Your task to perform on an android device: show emergency info Image 0: 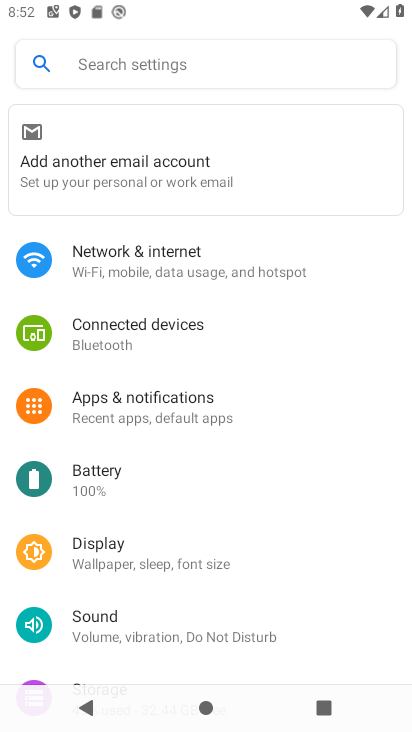
Step 0: drag from (217, 584) to (282, 229)
Your task to perform on an android device: show emergency info Image 1: 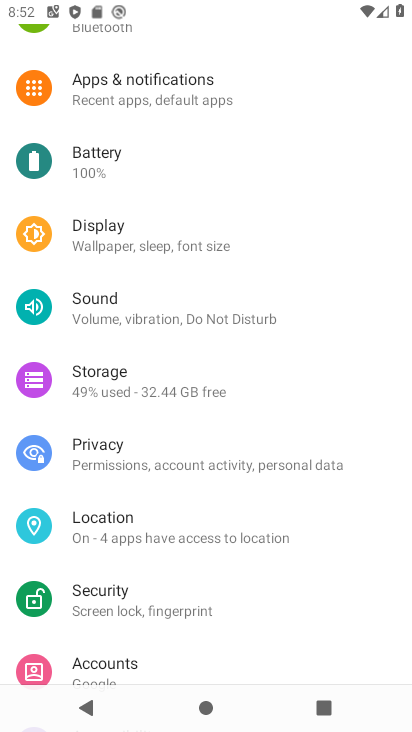
Step 1: drag from (155, 492) to (136, 108)
Your task to perform on an android device: show emergency info Image 2: 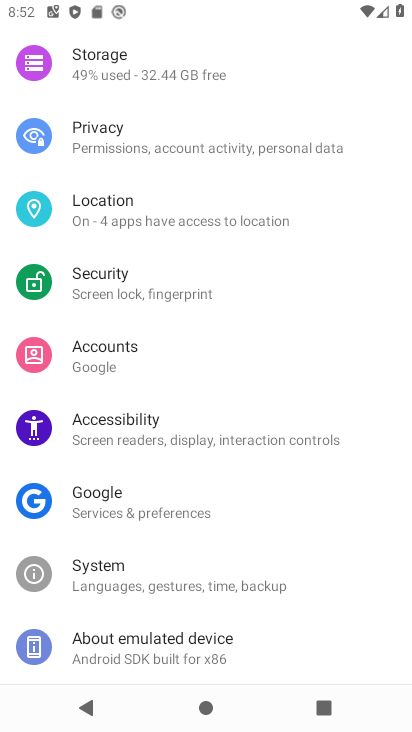
Step 2: click (133, 640)
Your task to perform on an android device: show emergency info Image 3: 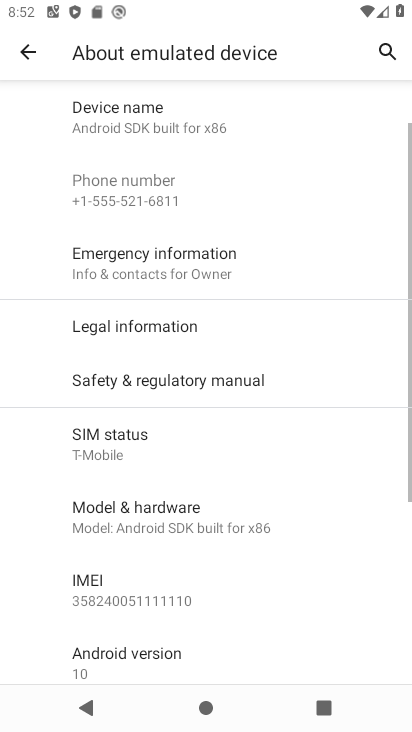
Step 3: click (208, 253)
Your task to perform on an android device: show emergency info Image 4: 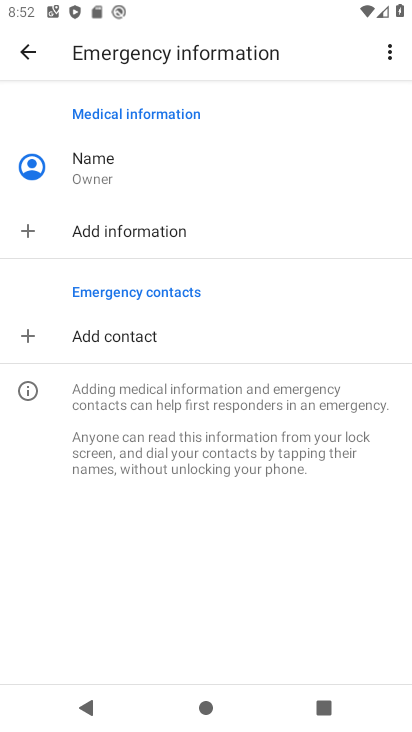
Step 4: task complete